Your task to perform on an android device: Open maps Image 0: 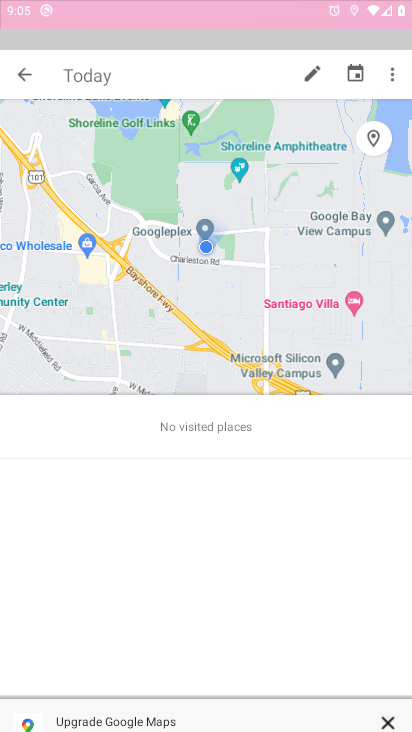
Step 0: press home button
Your task to perform on an android device: Open maps Image 1: 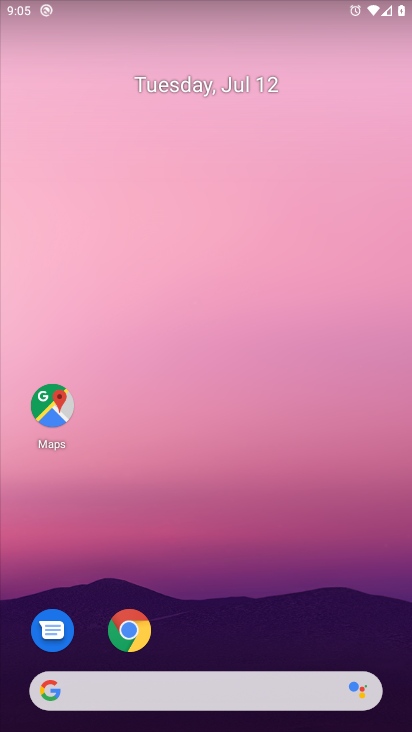
Step 1: drag from (201, 633) to (202, 170)
Your task to perform on an android device: Open maps Image 2: 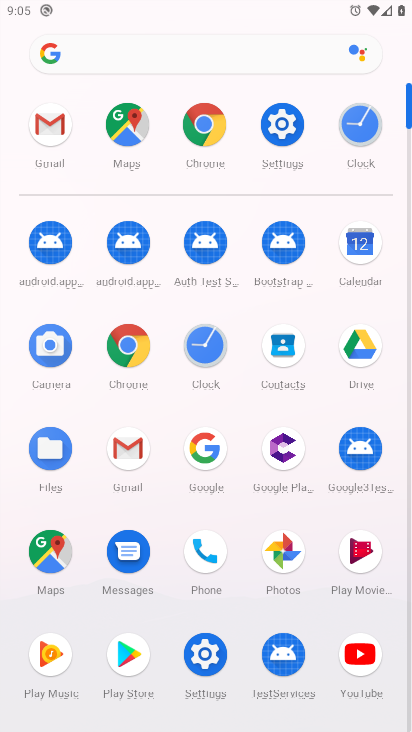
Step 2: click (127, 125)
Your task to perform on an android device: Open maps Image 3: 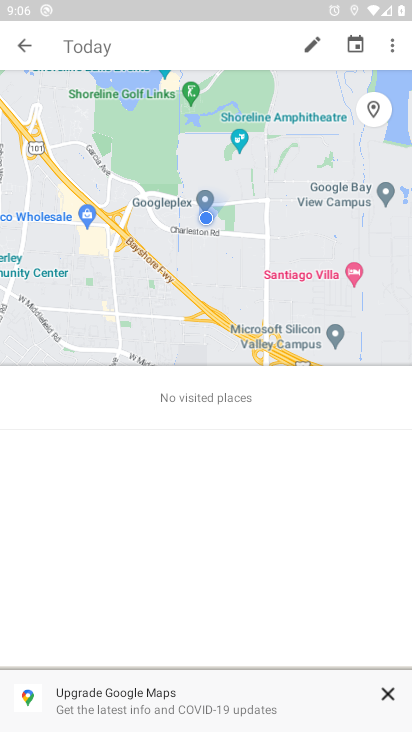
Step 3: task complete